Your task to perform on an android device: turn on data saver in the chrome app Image 0: 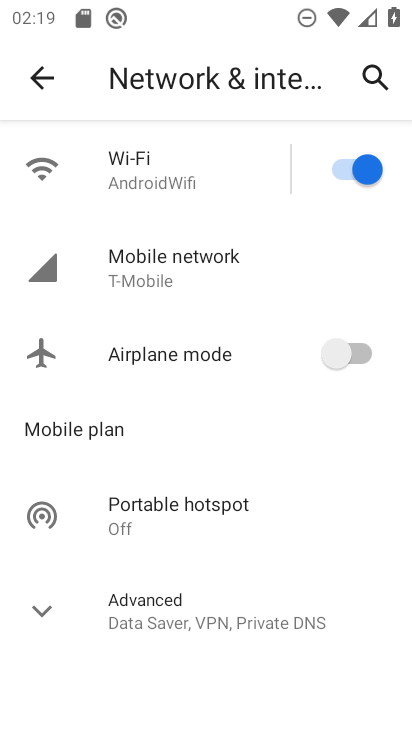
Step 0: press home button
Your task to perform on an android device: turn on data saver in the chrome app Image 1: 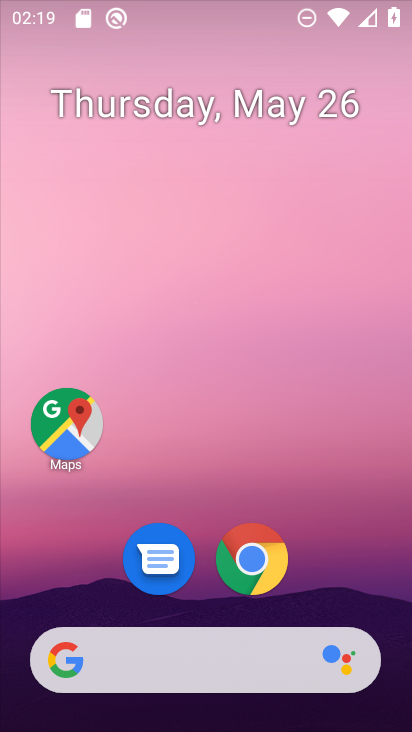
Step 1: drag from (196, 672) to (401, 169)
Your task to perform on an android device: turn on data saver in the chrome app Image 2: 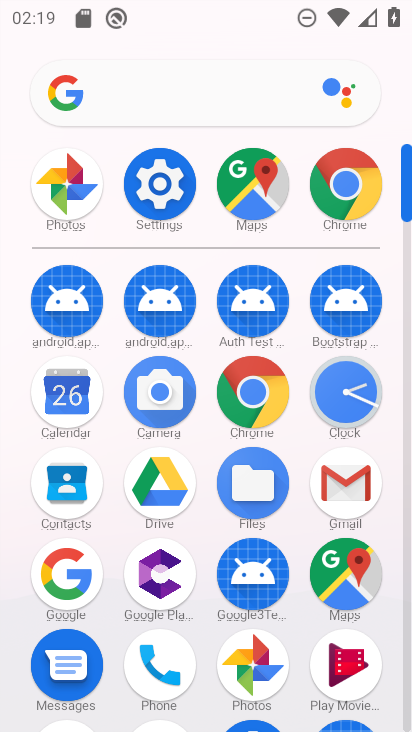
Step 2: click (347, 192)
Your task to perform on an android device: turn on data saver in the chrome app Image 3: 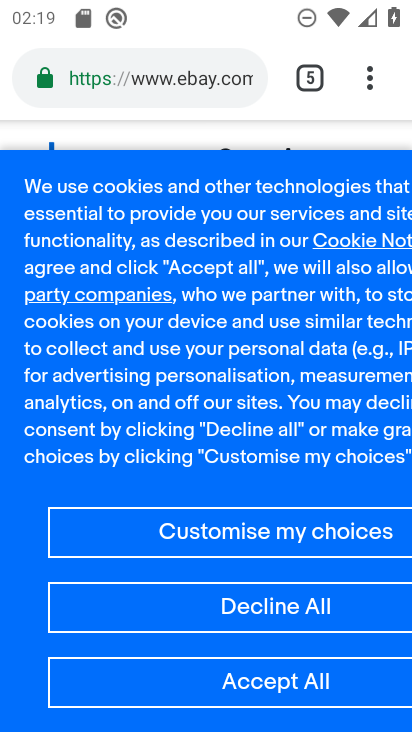
Step 3: drag from (373, 79) to (192, 632)
Your task to perform on an android device: turn on data saver in the chrome app Image 4: 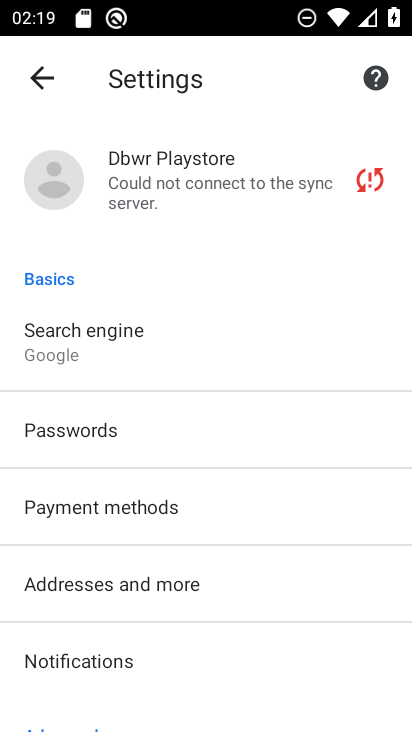
Step 4: drag from (186, 647) to (337, 156)
Your task to perform on an android device: turn on data saver in the chrome app Image 5: 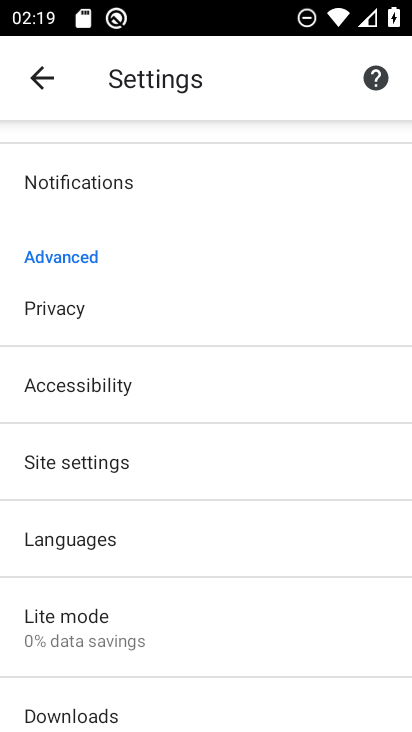
Step 5: click (123, 633)
Your task to perform on an android device: turn on data saver in the chrome app Image 6: 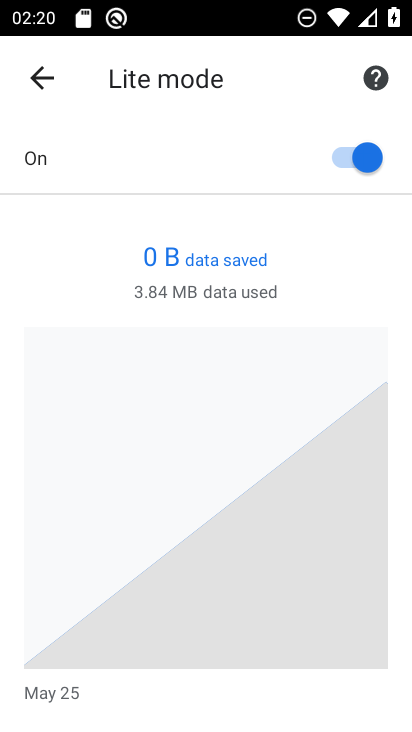
Step 6: task complete